Your task to perform on an android device: check storage Image 0: 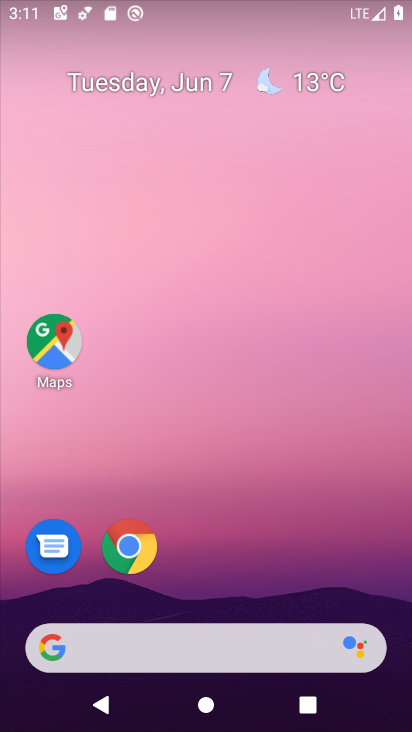
Step 0: drag from (369, 591) to (390, 216)
Your task to perform on an android device: check storage Image 1: 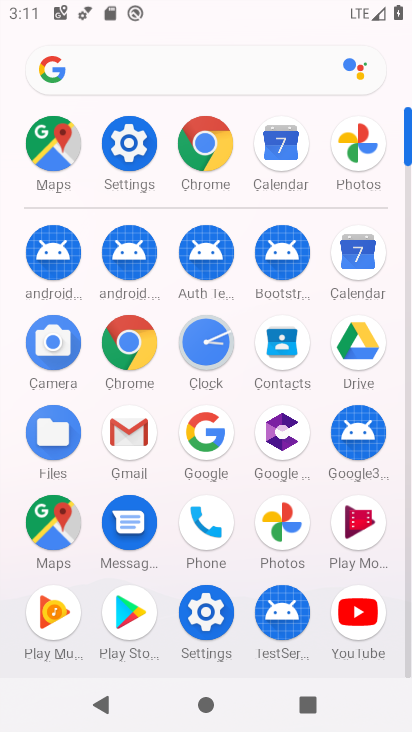
Step 1: click (211, 607)
Your task to perform on an android device: check storage Image 2: 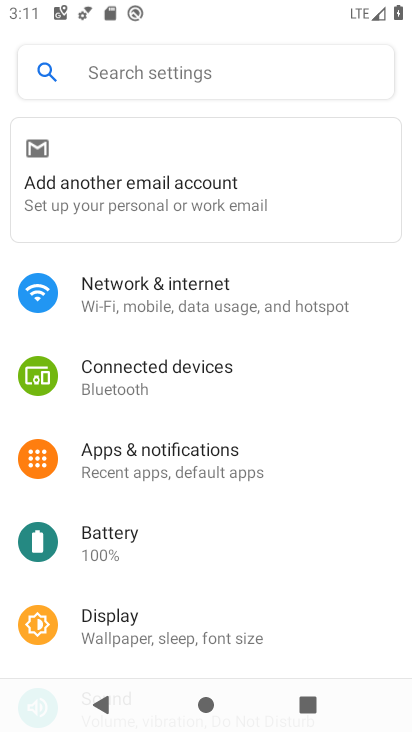
Step 2: drag from (325, 515) to (332, 379)
Your task to perform on an android device: check storage Image 3: 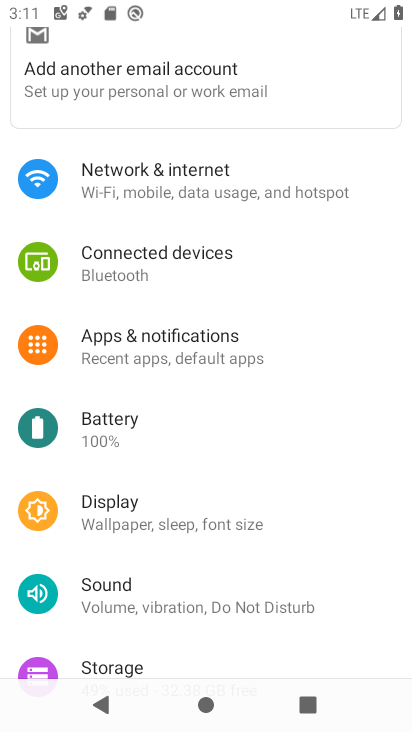
Step 3: drag from (348, 437) to (365, 254)
Your task to perform on an android device: check storage Image 4: 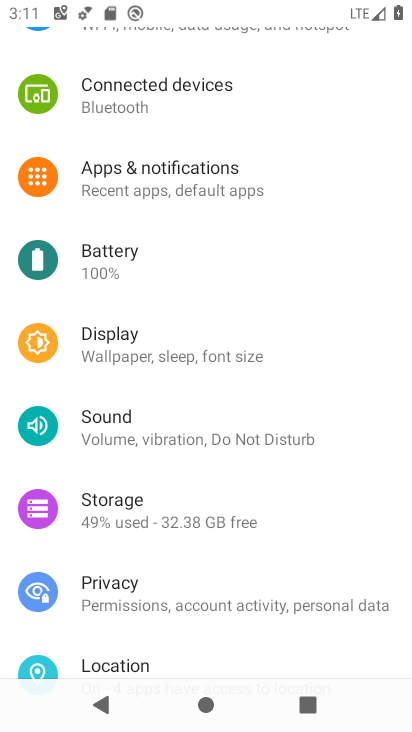
Step 4: drag from (345, 372) to (373, 160)
Your task to perform on an android device: check storage Image 5: 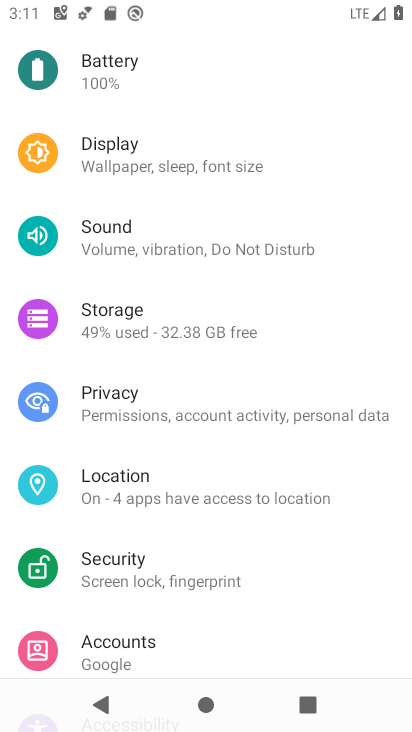
Step 5: drag from (332, 586) to (326, 408)
Your task to perform on an android device: check storage Image 6: 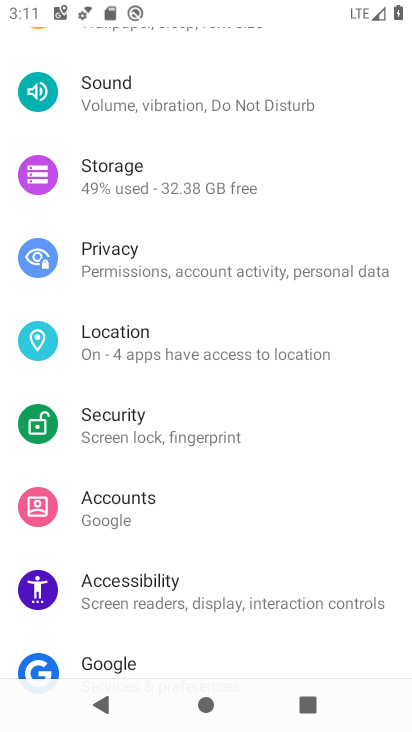
Step 6: drag from (353, 495) to (345, 350)
Your task to perform on an android device: check storage Image 7: 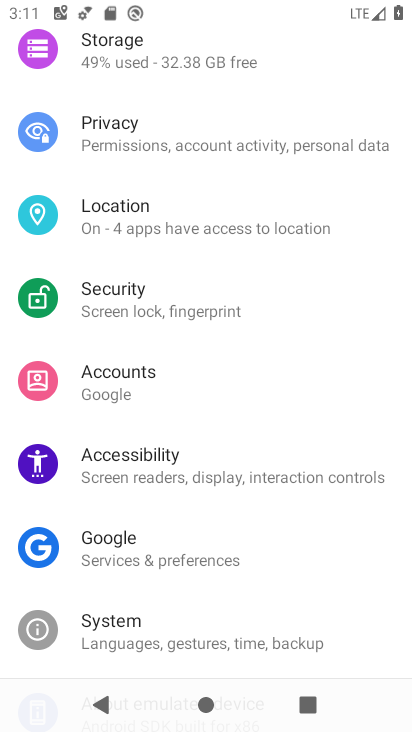
Step 7: drag from (339, 547) to (339, 363)
Your task to perform on an android device: check storage Image 8: 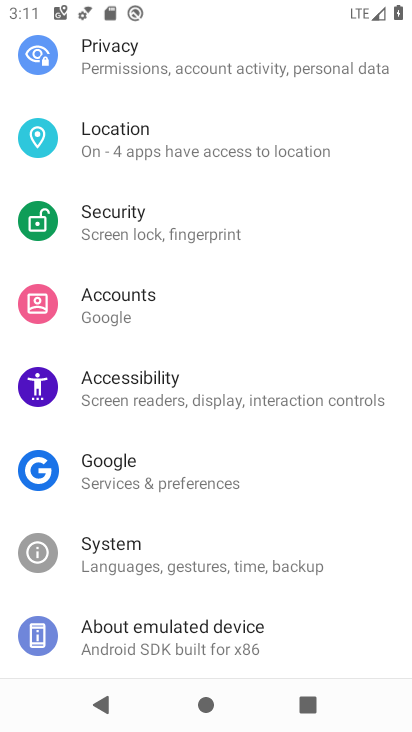
Step 8: drag from (308, 254) to (303, 401)
Your task to perform on an android device: check storage Image 9: 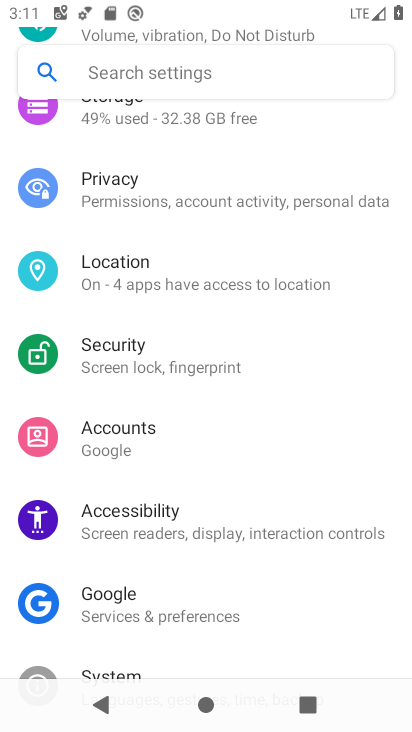
Step 9: drag from (306, 235) to (308, 388)
Your task to perform on an android device: check storage Image 10: 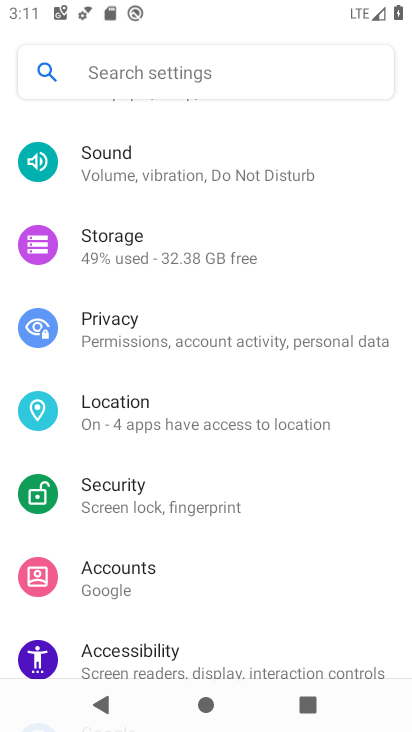
Step 10: click (280, 245)
Your task to perform on an android device: check storage Image 11: 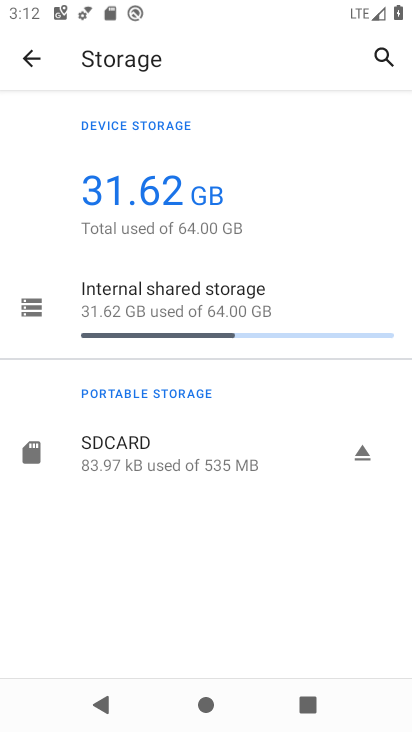
Step 11: task complete